Your task to perform on an android device: toggle location history Image 0: 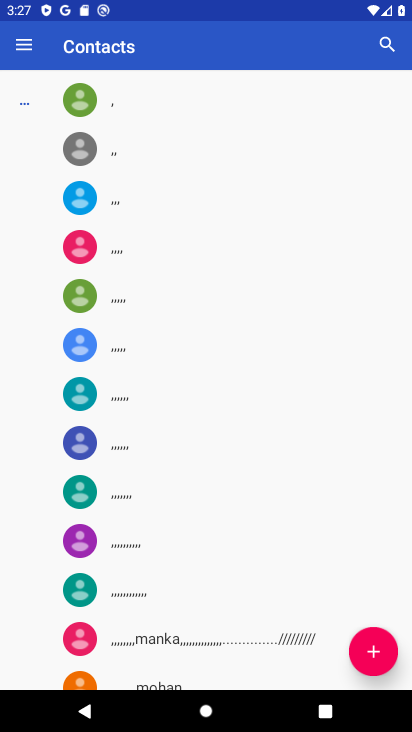
Step 0: press home button
Your task to perform on an android device: toggle location history Image 1: 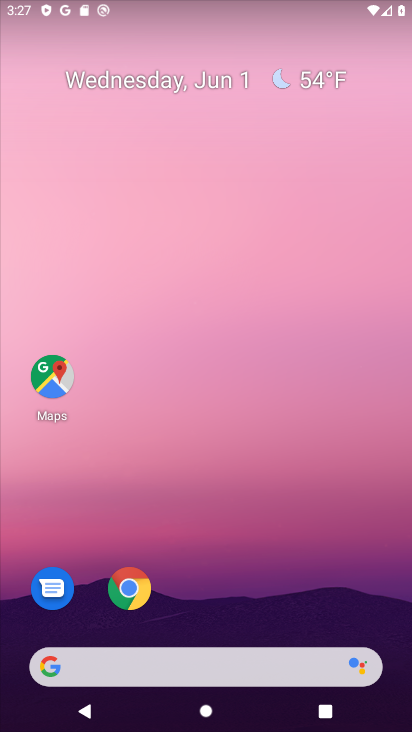
Step 1: drag from (201, 635) to (225, 45)
Your task to perform on an android device: toggle location history Image 2: 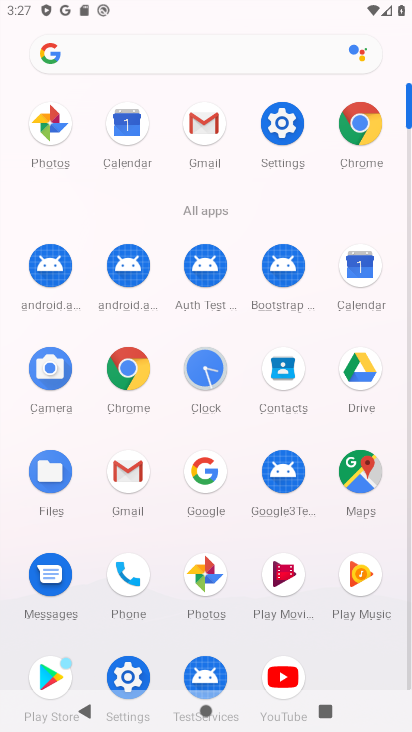
Step 2: click (133, 678)
Your task to perform on an android device: toggle location history Image 3: 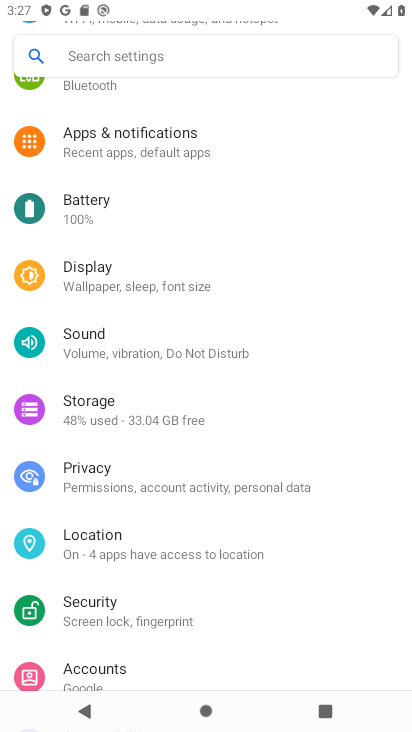
Step 3: click (105, 542)
Your task to perform on an android device: toggle location history Image 4: 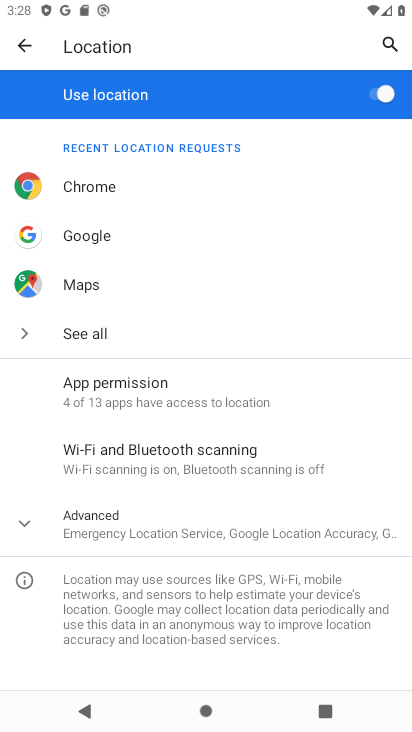
Step 4: click (110, 524)
Your task to perform on an android device: toggle location history Image 5: 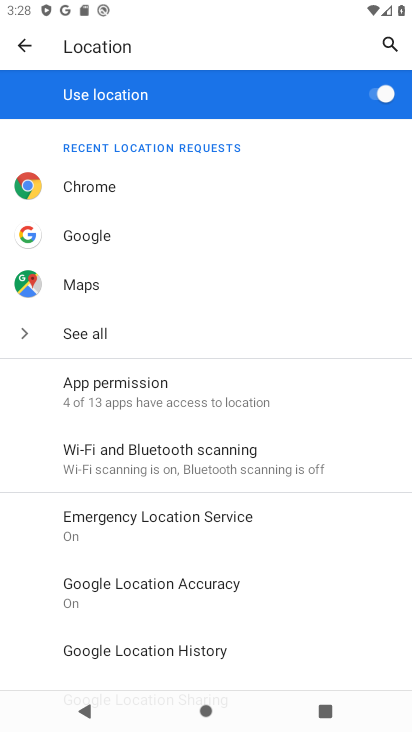
Step 5: drag from (151, 598) to (176, 471)
Your task to perform on an android device: toggle location history Image 6: 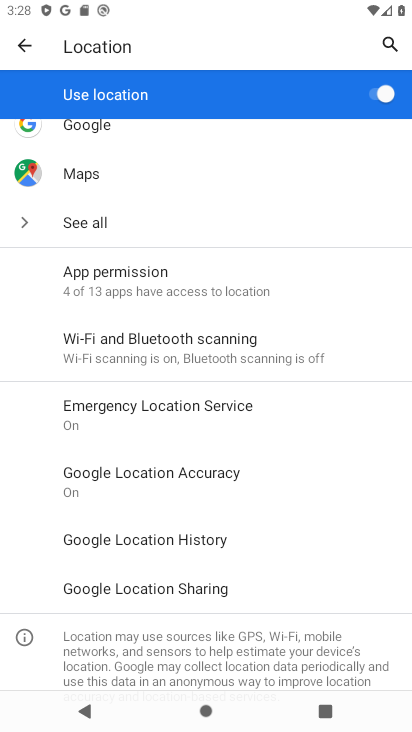
Step 6: click (151, 548)
Your task to perform on an android device: toggle location history Image 7: 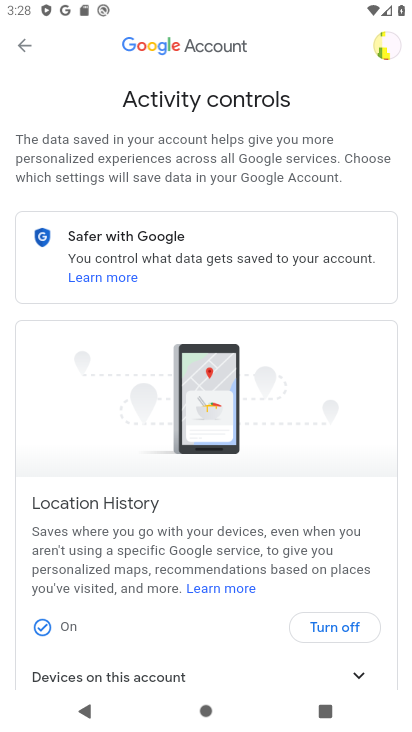
Step 7: drag from (260, 555) to (262, 411)
Your task to perform on an android device: toggle location history Image 8: 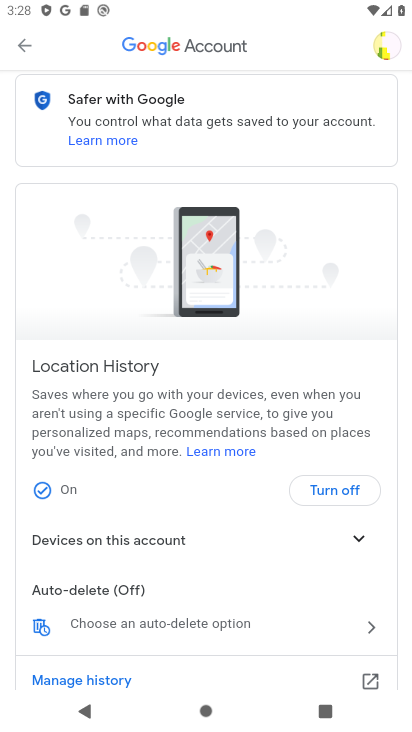
Step 8: click (318, 474)
Your task to perform on an android device: toggle location history Image 9: 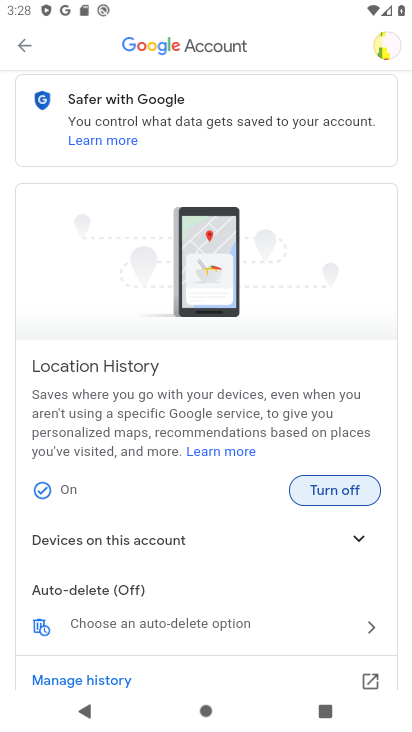
Step 9: click (318, 496)
Your task to perform on an android device: toggle location history Image 10: 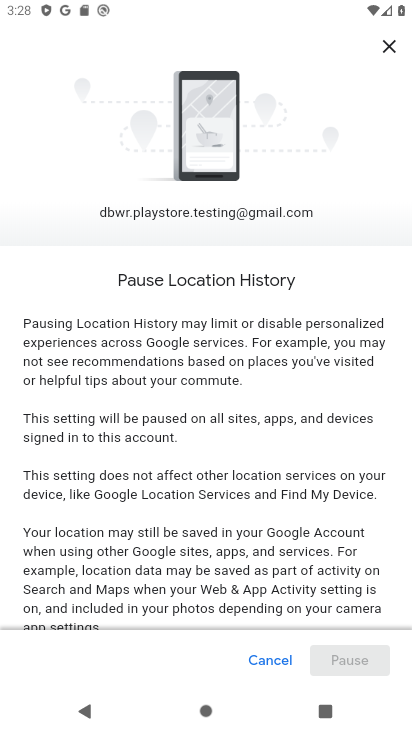
Step 10: drag from (229, 567) to (253, 85)
Your task to perform on an android device: toggle location history Image 11: 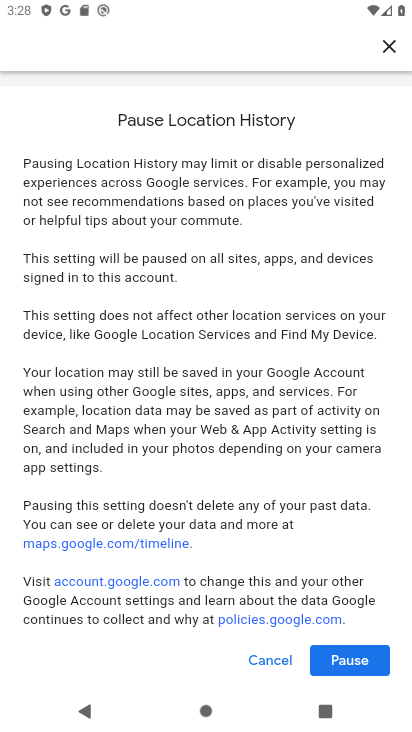
Step 11: click (369, 668)
Your task to perform on an android device: toggle location history Image 12: 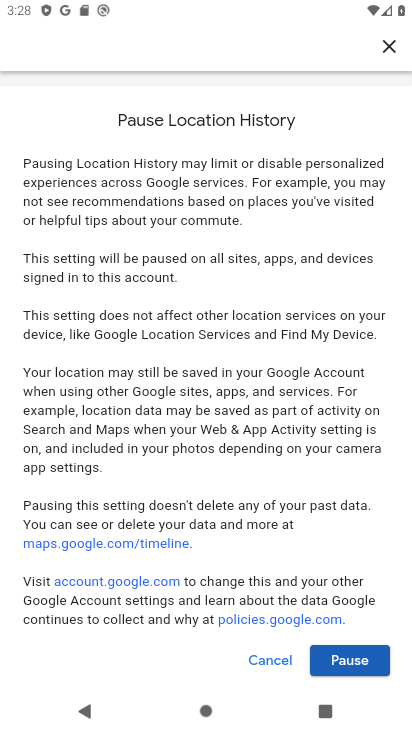
Step 12: click (357, 657)
Your task to perform on an android device: toggle location history Image 13: 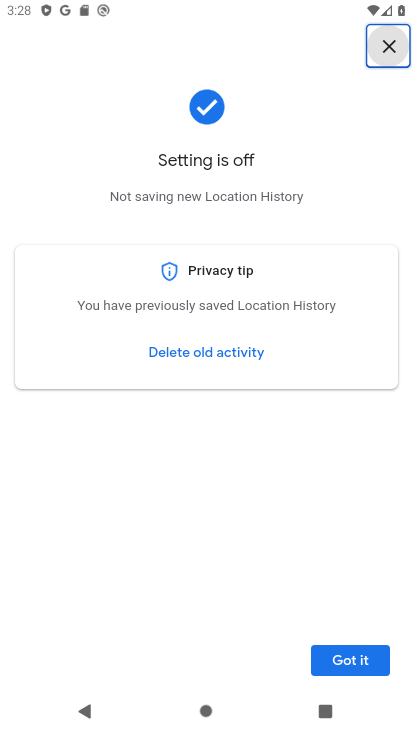
Step 13: click (357, 656)
Your task to perform on an android device: toggle location history Image 14: 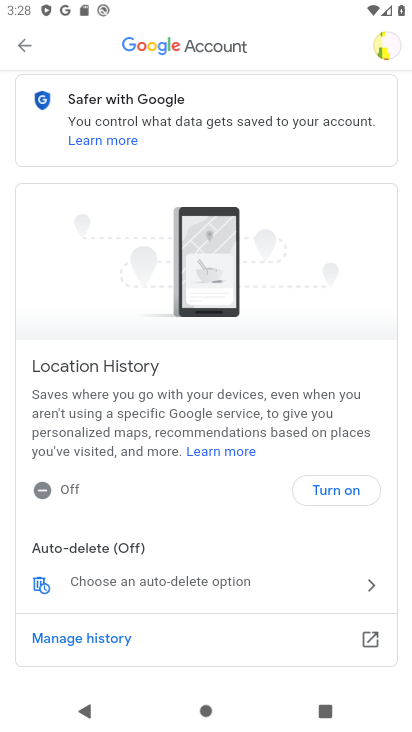
Step 14: task complete